Your task to perform on an android device: star an email in the gmail app Image 0: 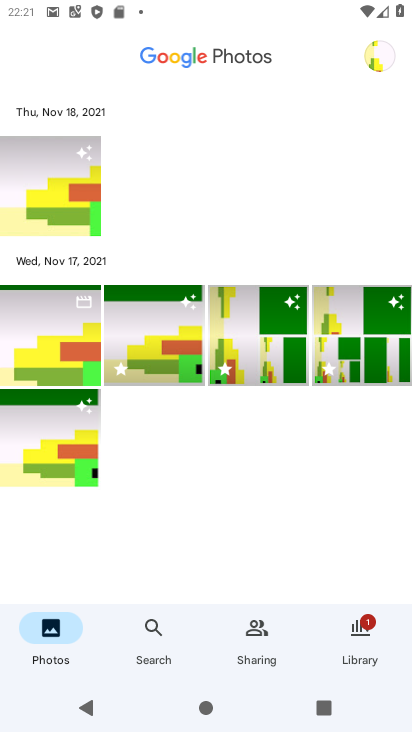
Step 0: press home button
Your task to perform on an android device: star an email in the gmail app Image 1: 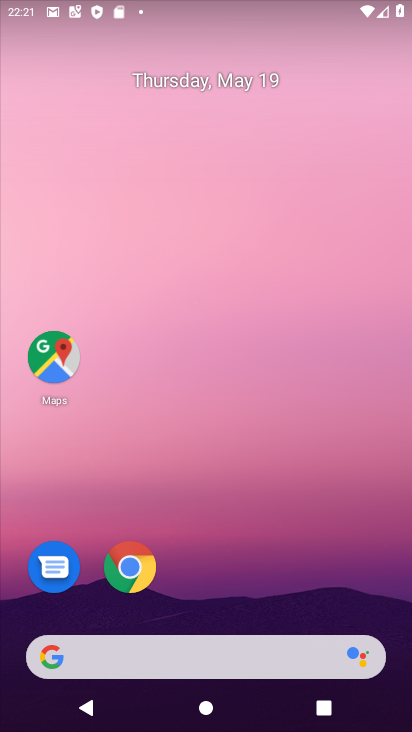
Step 1: drag from (229, 603) to (282, 136)
Your task to perform on an android device: star an email in the gmail app Image 2: 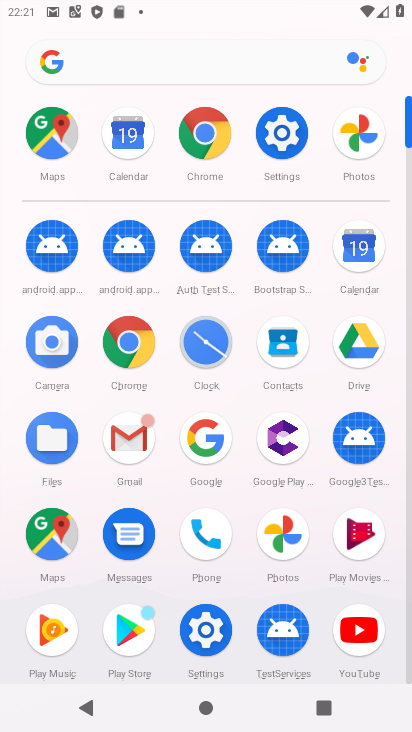
Step 2: click (129, 423)
Your task to perform on an android device: star an email in the gmail app Image 3: 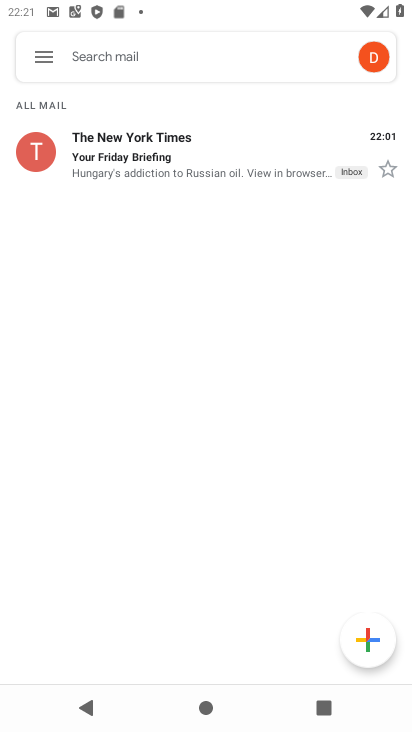
Step 3: click (27, 148)
Your task to perform on an android device: star an email in the gmail app Image 4: 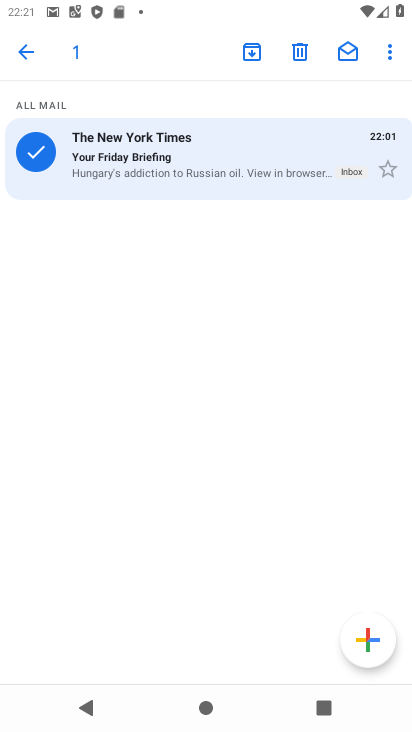
Step 4: click (387, 47)
Your task to perform on an android device: star an email in the gmail app Image 5: 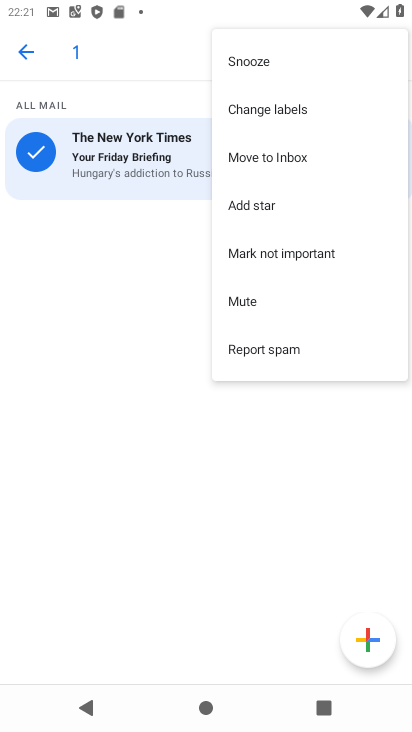
Step 5: click (263, 205)
Your task to perform on an android device: star an email in the gmail app Image 6: 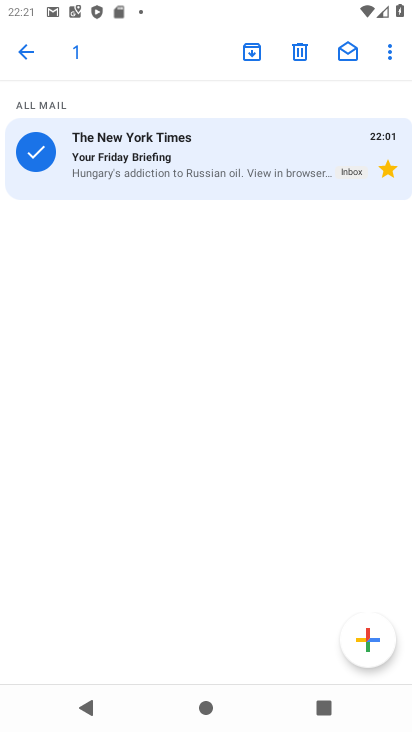
Step 6: task complete